Your task to perform on an android device: see creations saved in the google photos Image 0: 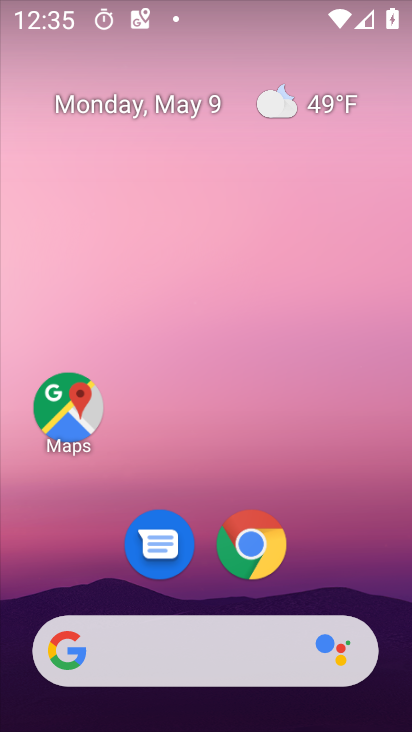
Step 0: drag from (328, 612) to (294, 2)
Your task to perform on an android device: see creations saved in the google photos Image 1: 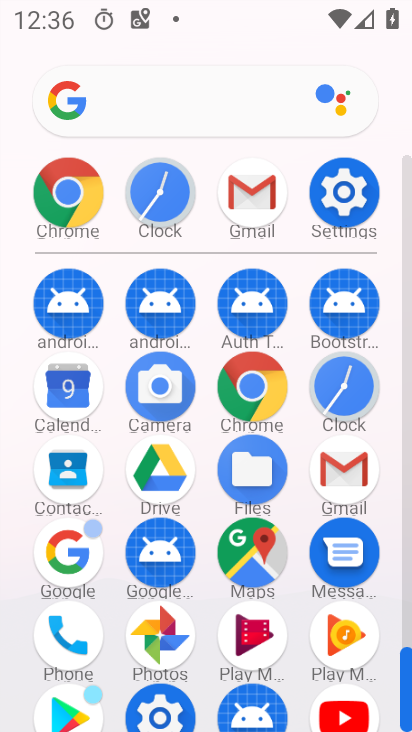
Step 1: click (146, 621)
Your task to perform on an android device: see creations saved in the google photos Image 2: 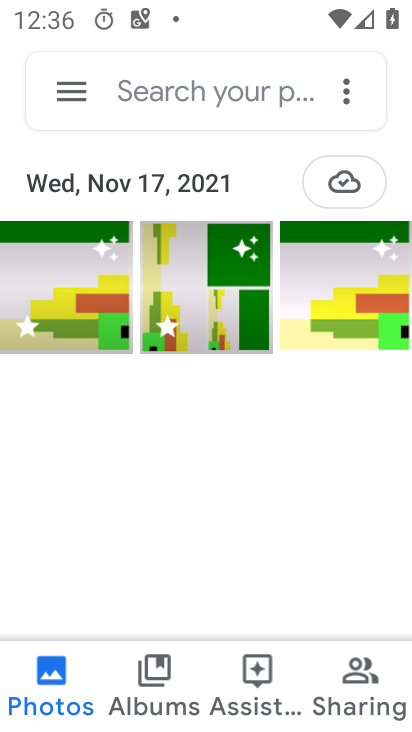
Step 2: task complete